Your task to perform on an android device: change the clock style Image 0: 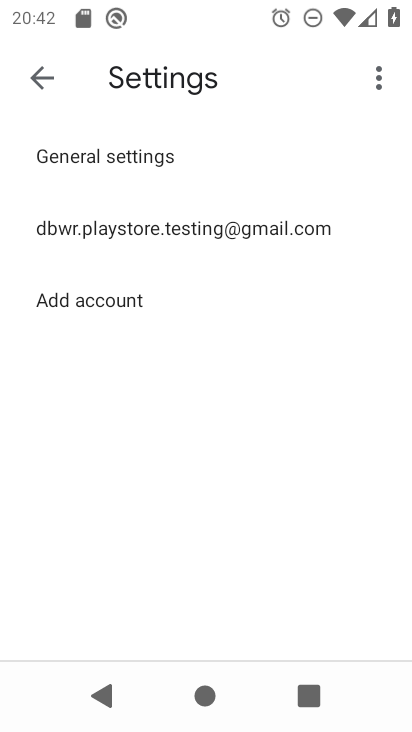
Step 0: press home button
Your task to perform on an android device: change the clock style Image 1: 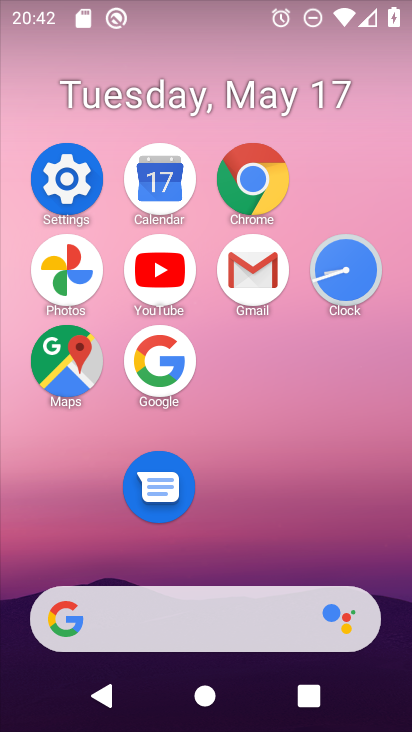
Step 1: click (359, 281)
Your task to perform on an android device: change the clock style Image 2: 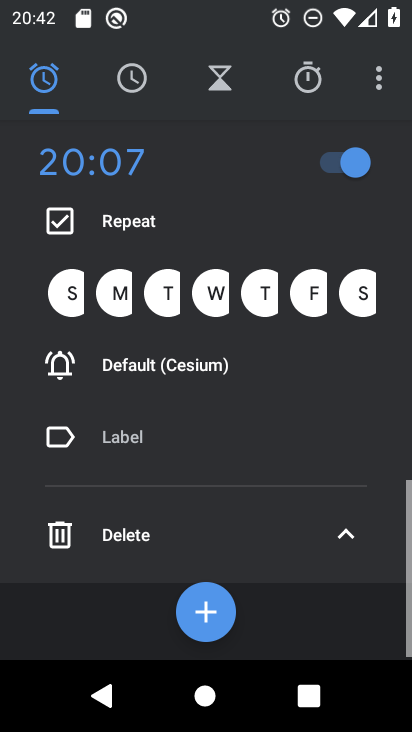
Step 2: click (387, 54)
Your task to perform on an android device: change the clock style Image 3: 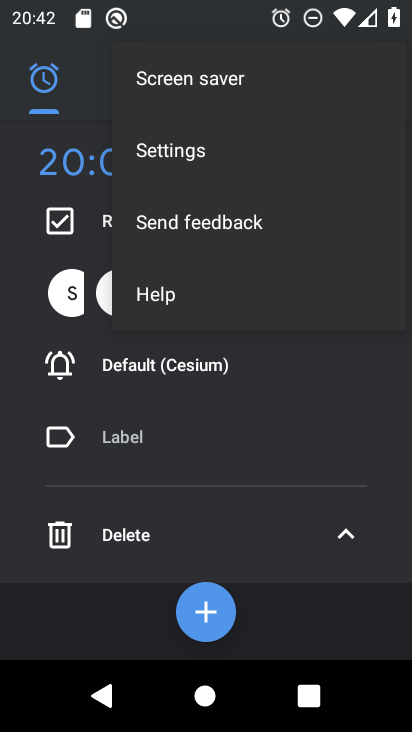
Step 3: click (265, 162)
Your task to perform on an android device: change the clock style Image 4: 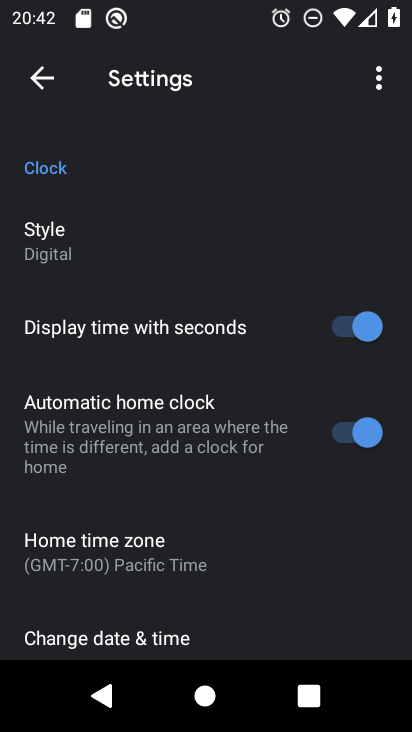
Step 4: click (70, 220)
Your task to perform on an android device: change the clock style Image 5: 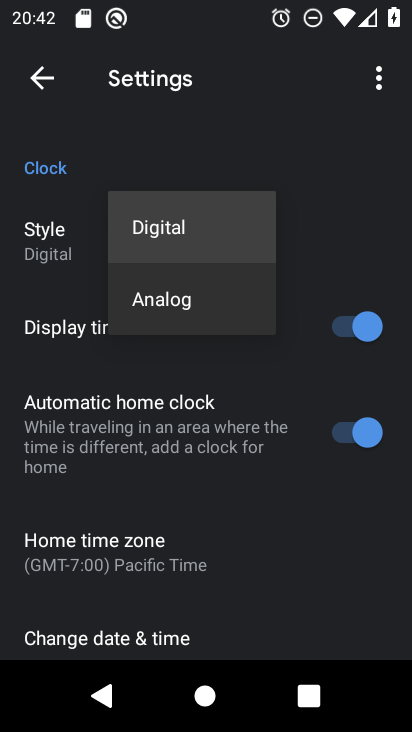
Step 5: click (191, 295)
Your task to perform on an android device: change the clock style Image 6: 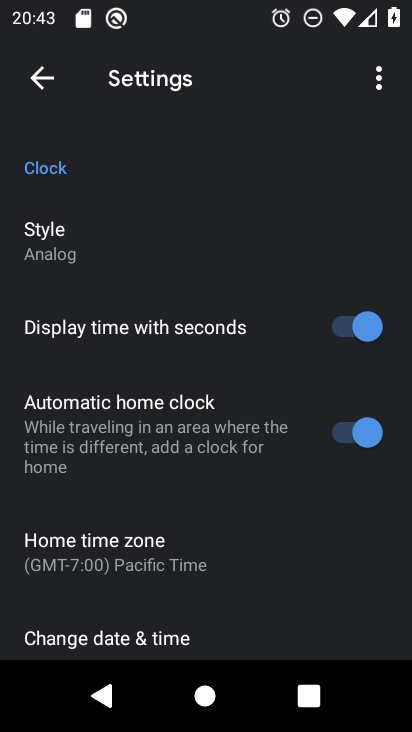
Step 6: task complete